Your task to perform on an android device: turn on translation in the chrome app Image 0: 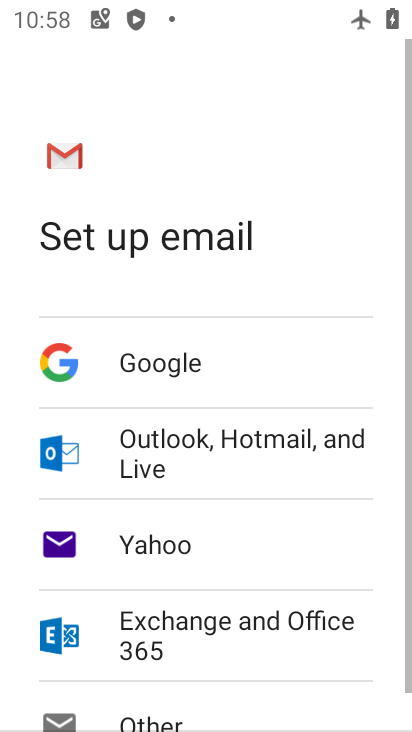
Step 0: press home button
Your task to perform on an android device: turn on translation in the chrome app Image 1: 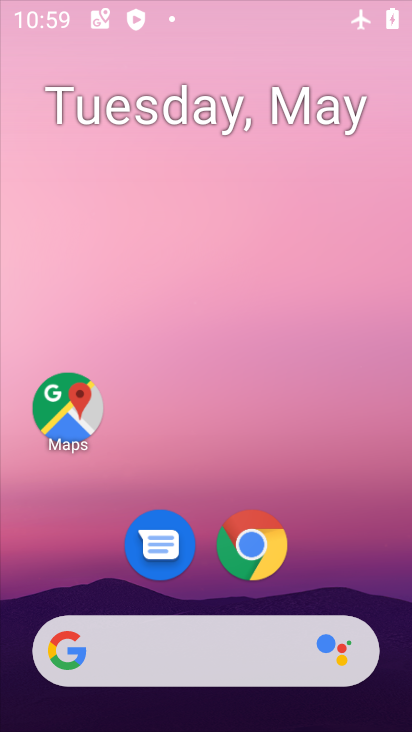
Step 1: drag from (191, 670) to (290, 84)
Your task to perform on an android device: turn on translation in the chrome app Image 2: 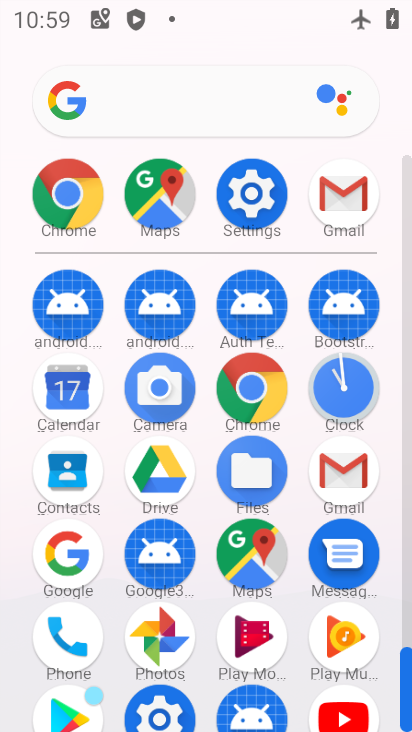
Step 2: click (248, 404)
Your task to perform on an android device: turn on translation in the chrome app Image 3: 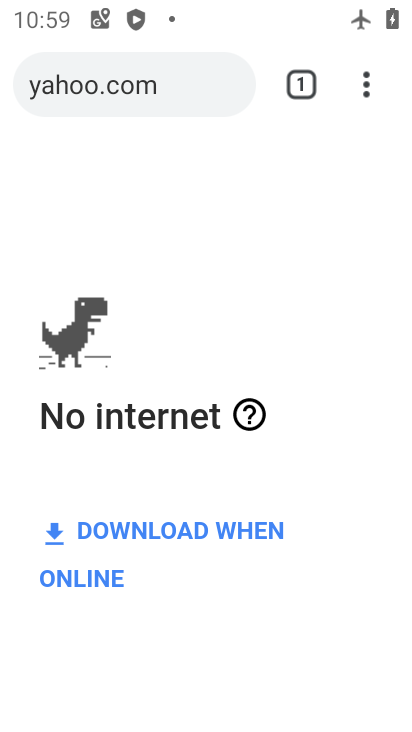
Step 3: click (371, 84)
Your task to perform on an android device: turn on translation in the chrome app Image 4: 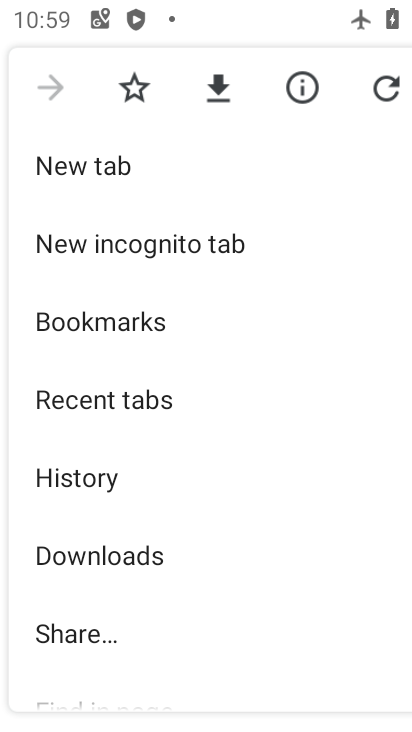
Step 4: drag from (151, 626) to (112, 199)
Your task to perform on an android device: turn on translation in the chrome app Image 5: 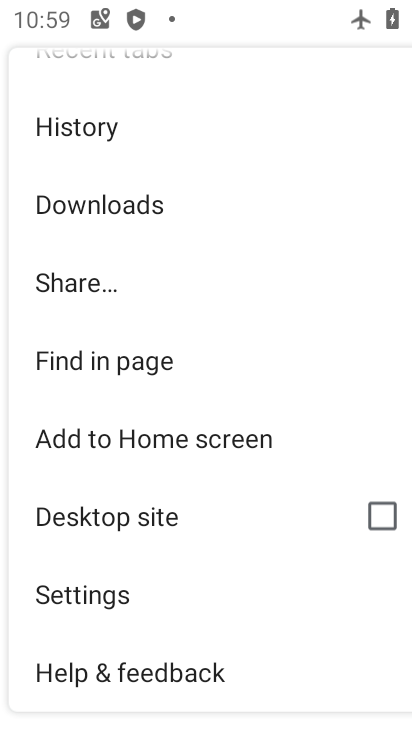
Step 5: drag from (166, 575) to (143, 204)
Your task to perform on an android device: turn on translation in the chrome app Image 6: 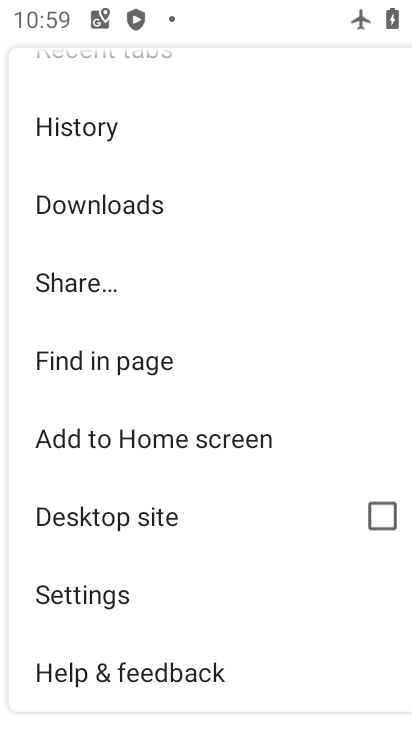
Step 6: click (111, 595)
Your task to perform on an android device: turn on translation in the chrome app Image 7: 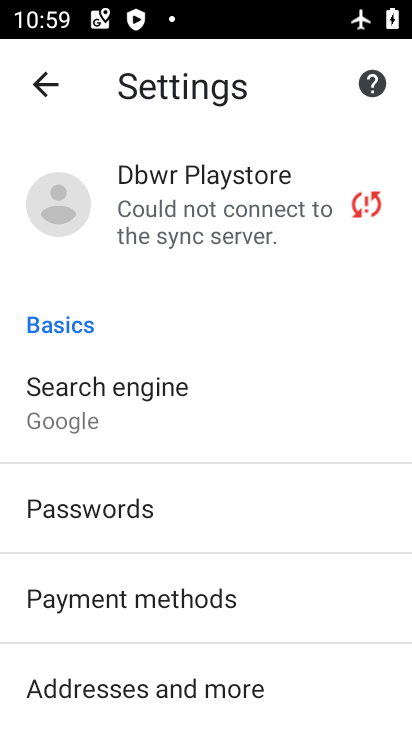
Step 7: task complete